Your task to perform on an android device: change timer sound Image 0: 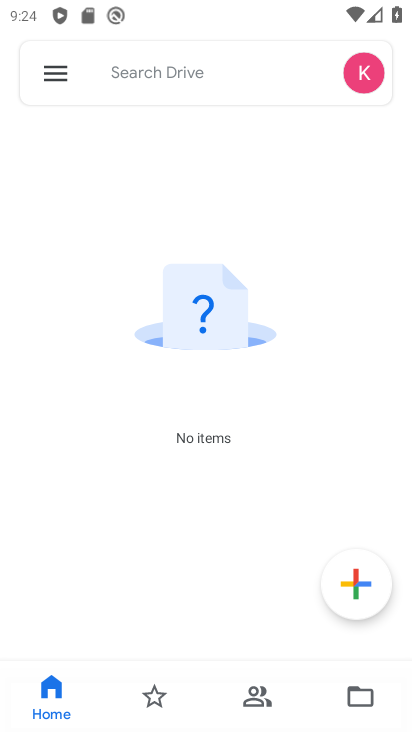
Step 0: press home button
Your task to perform on an android device: change timer sound Image 1: 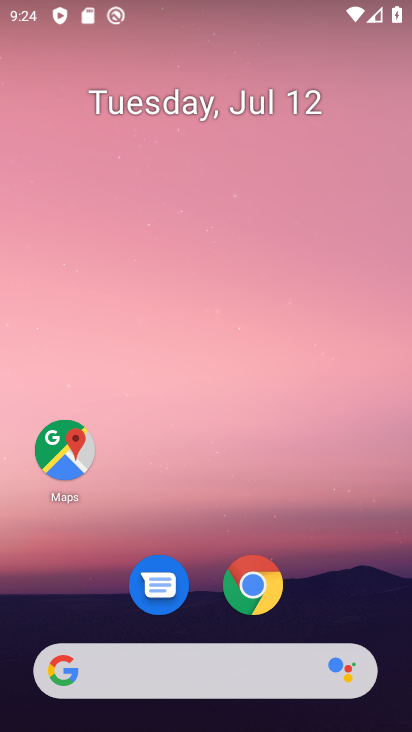
Step 1: drag from (200, 674) to (344, 95)
Your task to perform on an android device: change timer sound Image 2: 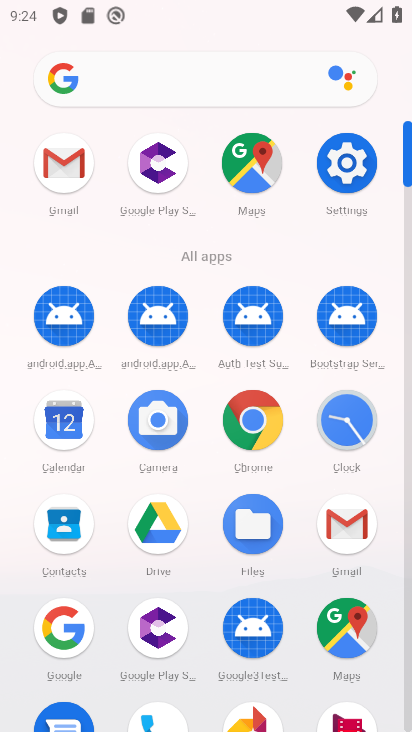
Step 2: click (347, 423)
Your task to perform on an android device: change timer sound Image 3: 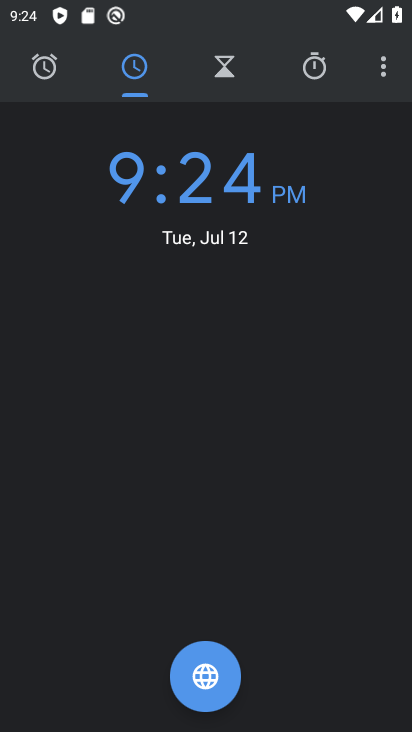
Step 3: click (380, 78)
Your task to perform on an android device: change timer sound Image 4: 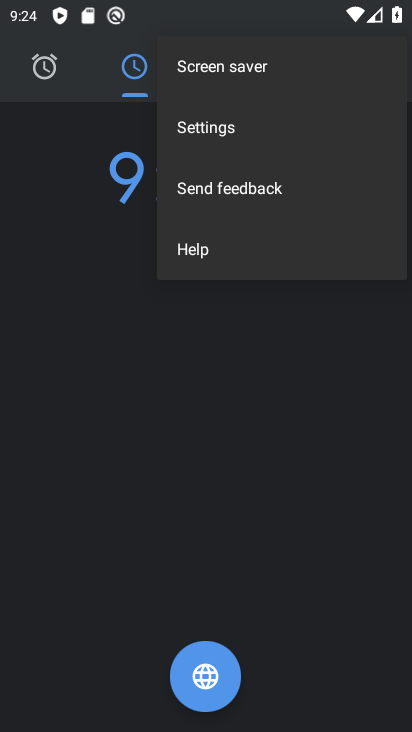
Step 4: click (282, 135)
Your task to perform on an android device: change timer sound Image 5: 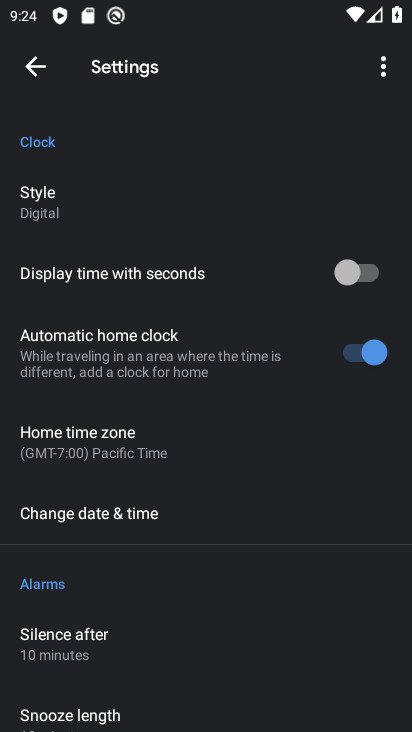
Step 5: drag from (173, 585) to (319, 159)
Your task to perform on an android device: change timer sound Image 6: 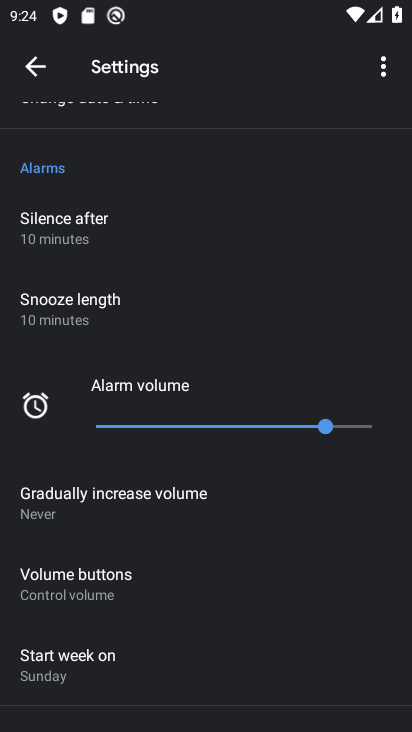
Step 6: drag from (189, 571) to (319, 228)
Your task to perform on an android device: change timer sound Image 7: 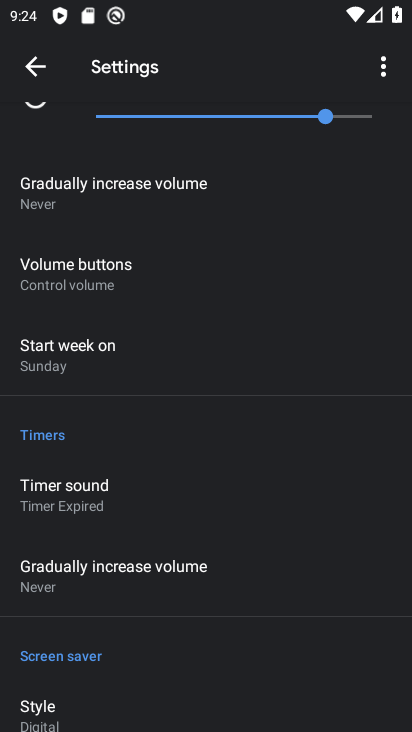
Step 7: click (53, 488)
Your task to perform on an android device: change timer sound Image 8: 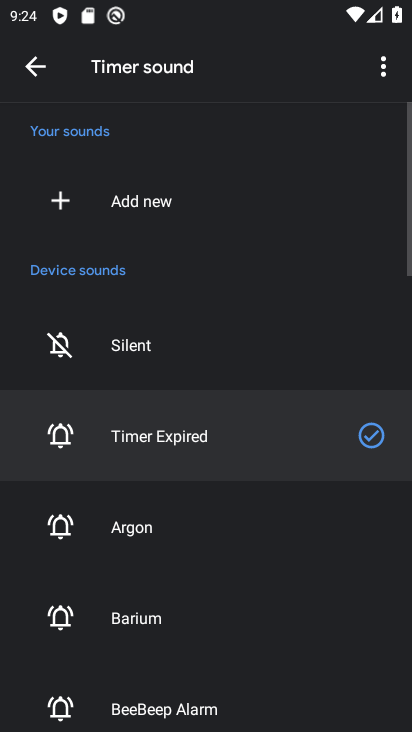
Step 8: click (109, 530)
Your task to perform on an android device: change timer sound Image 9: 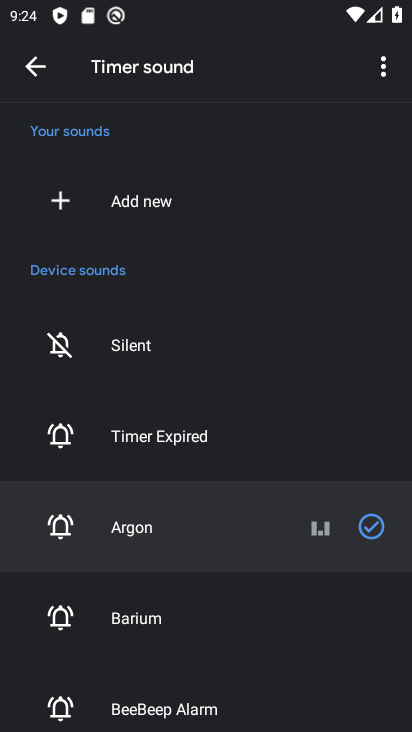
Step 9: task complete